Your task to perform on an android device: When is my next appointment? Image 0: 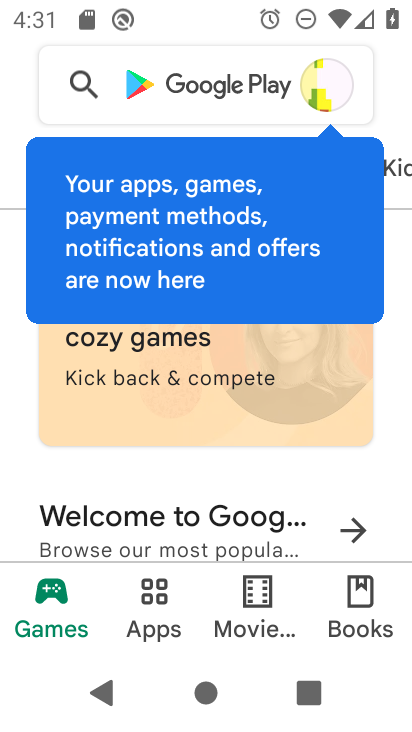
Step 0: press home button
Your task to perform on an android device: When is my next appointment? Image 1: 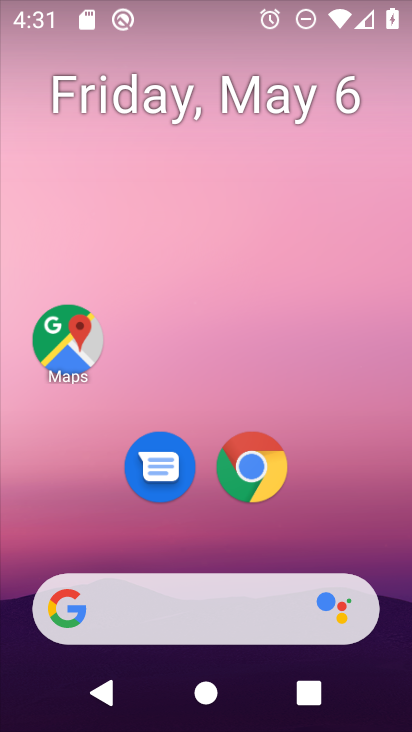
Step 1: drag from (272, 500) to (276, 97)
Your task to perform on an android device: When is my next appointment? Image 2: 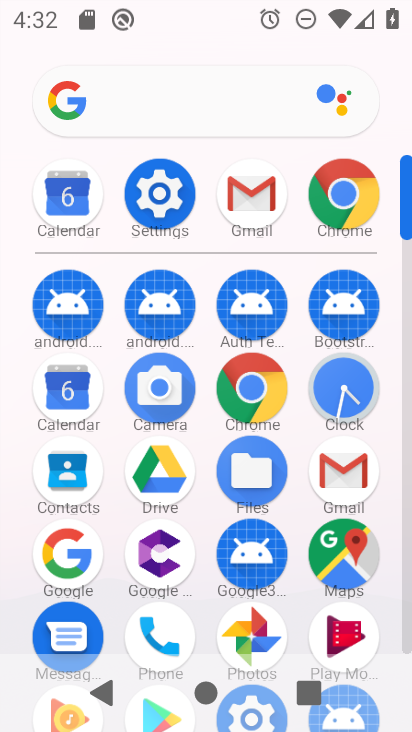
Step 2: drag from (275, 628) to (280, 183)
Your task to perform on an android device: When is my next appointment? Image 3: 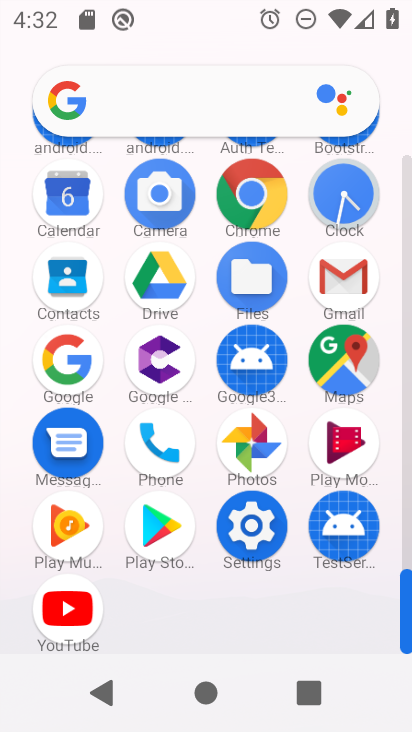
Step 3: click (63, 205)
Your task to perform on an android device: When is my next appointment? Image 4: 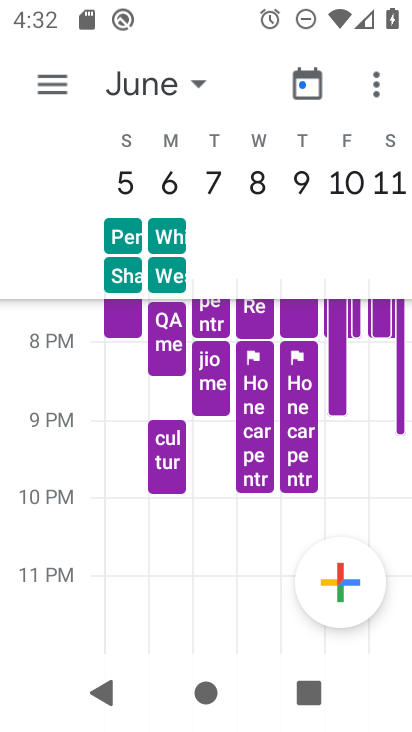
Step 4: click (43, 86)
Your task to perform on an android device: When is my next appointment? Image 5: 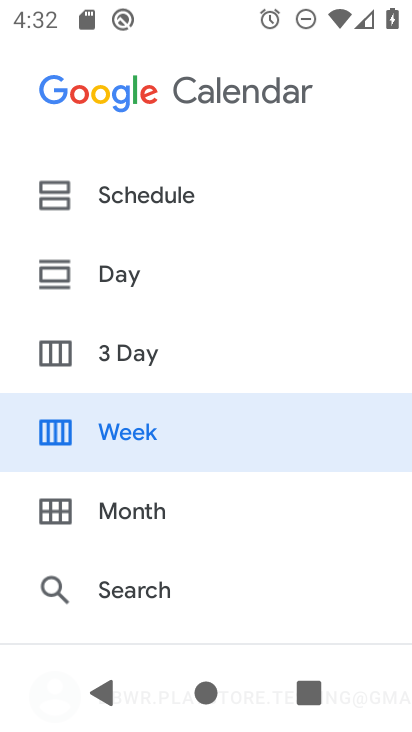
Step 5: click (111, 281)
Your task to perform on an android device: When is my next appointment? Image 6: 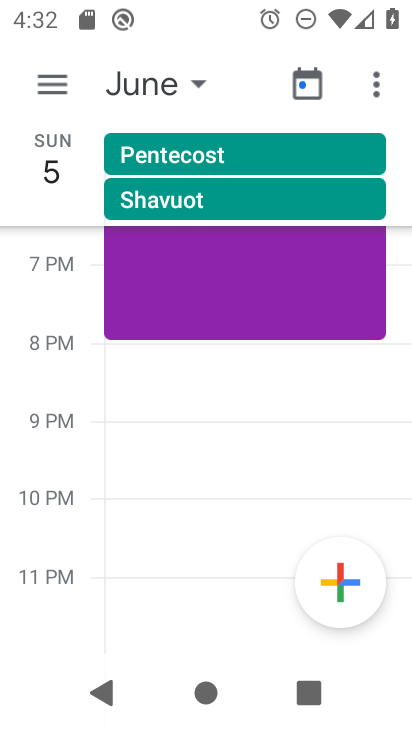
Step 6: click (139, 96)
Your task to perform on an android device: When is my next appointment? Image 7: 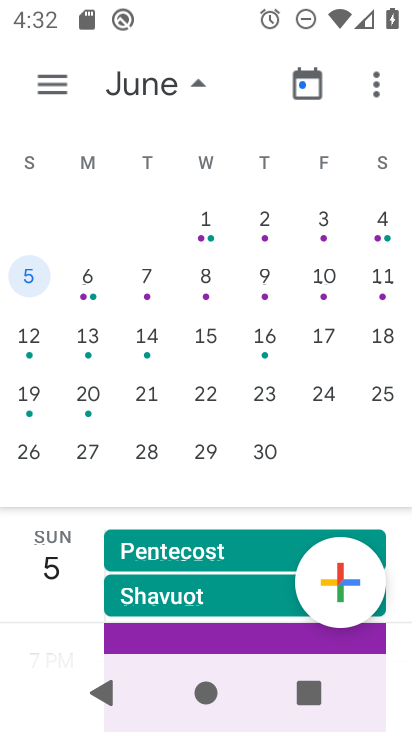
Step 7: drag from (103, 303) to (395, 339)
Your task to perform on an android device: When is my next appointment? Image 8: 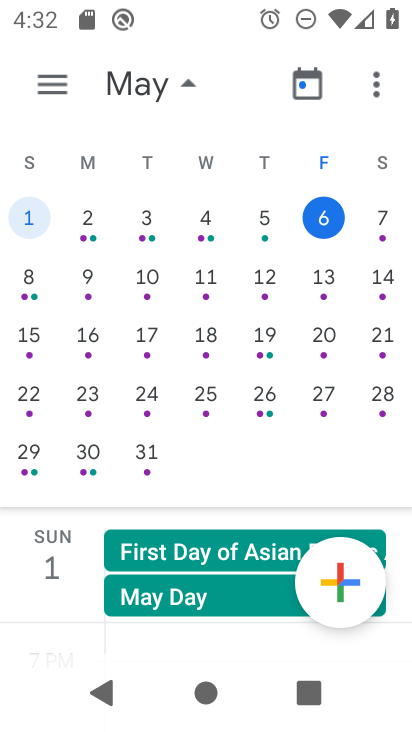
Step 8: click (320, 224)
Your task to perform on an android device: When is my next appointment? Image 9: 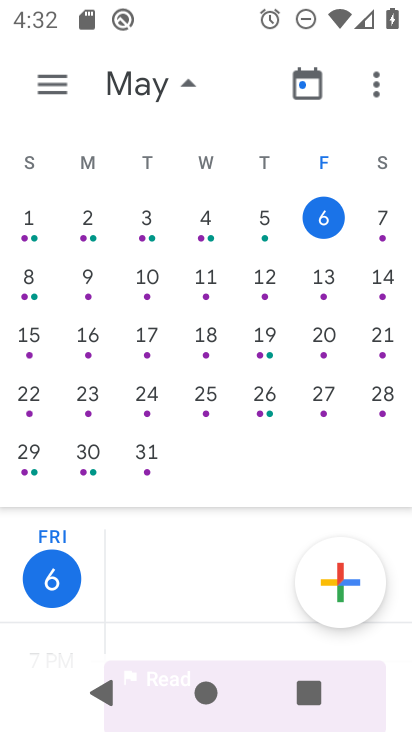
Step 9: drag from (166, 571) to (185, 191)
Your task to perform on an android device: When is my next appointment? Image 10: 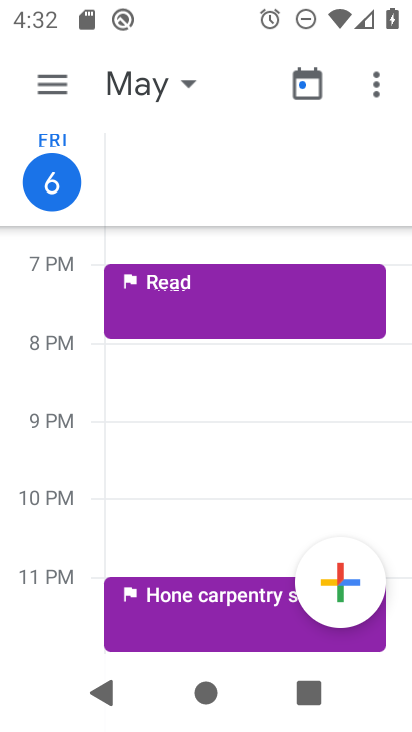
Step 10: drag from (165, 490) to (199, 160)
Your task to perform on an android device: When is my next appointment? Image 11: 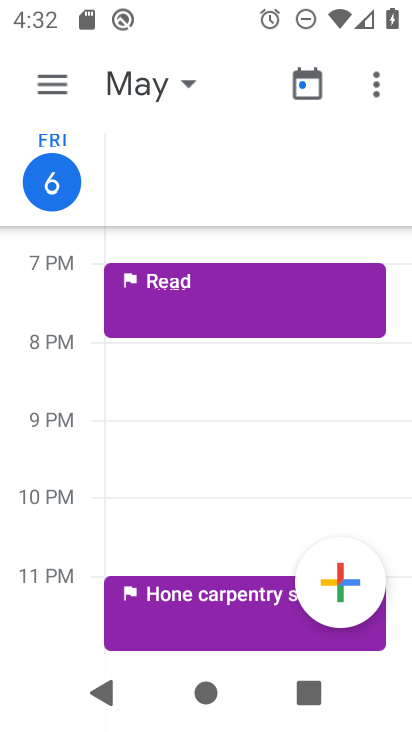
Step 11: drag from (201, 527) to (257, 264)
Your task to perform on an android device: When is my next appointment? Image 12: 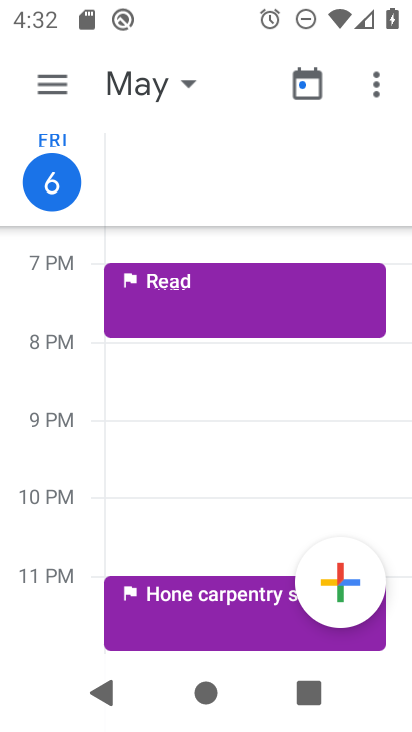
Step 12: drag from (240, 587) to (229, 269)
Your task to perform on an android device: When is my next appointment? Image 13: 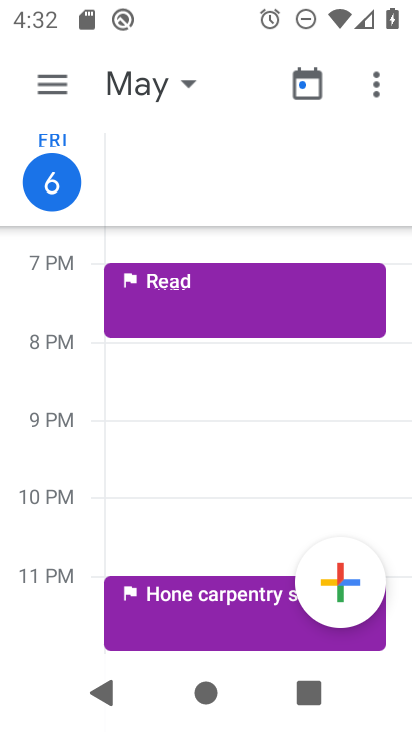
Step 13: drag from (212, 543) to (200, 198)
Your task to perform on an android device: When is my next appointment? Image 14: 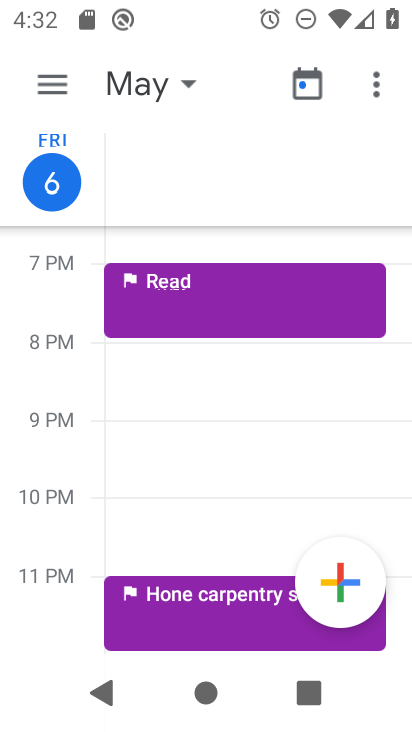
Step 14: drag from (213, 624) to (226, 141)
Your task to perform on an android device: When is my next appointment? Image 15: 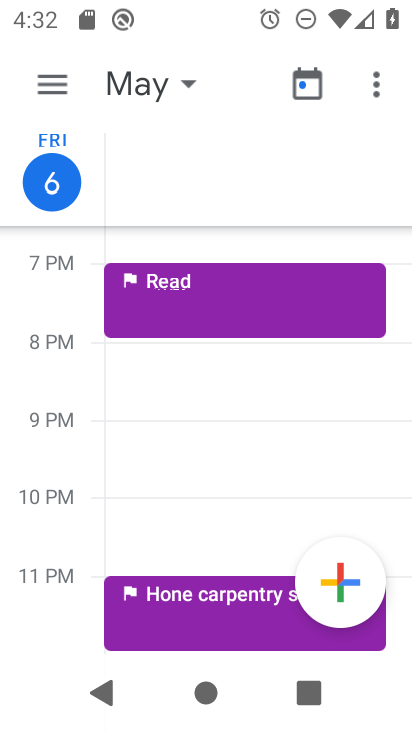
Step 15: drag from (211, 495) to (207, 147)
Your task to perform on an android device: When is my next appointment? Image 16: 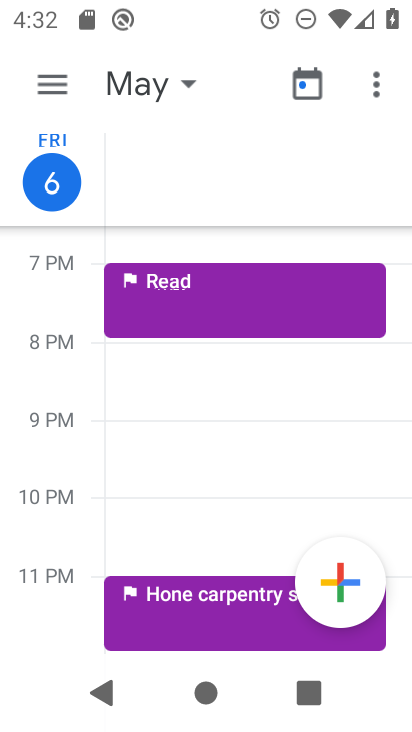
Step 16: drag from (228, 542) to (225, 167)
Your task to perform on an android device: When is my next appointment? Image 17: 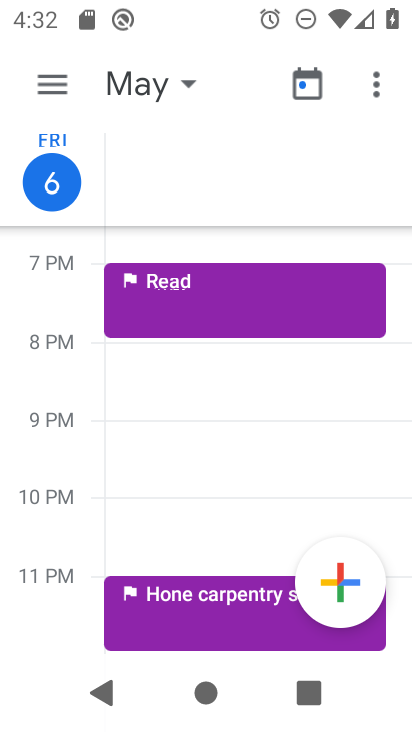
Step 17: drag from (226, 437) to (230, 643)
Your task to perform on an android device: When is my next appointment? Image 18: 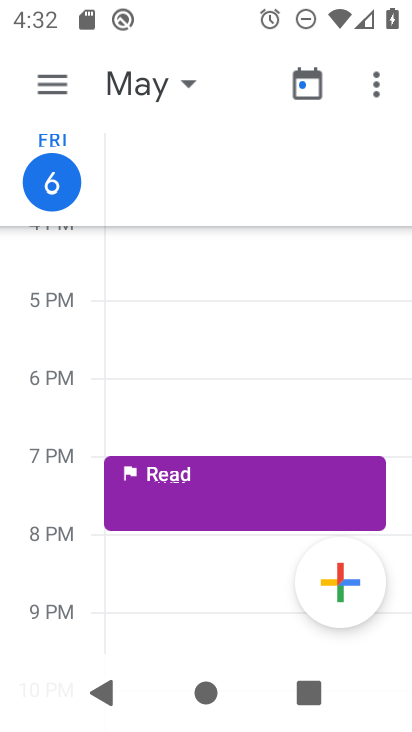
Step 18: drag from (218, 619) to (228, 88)
Your task to perform on an android device: When is my next appointment? Image 19: 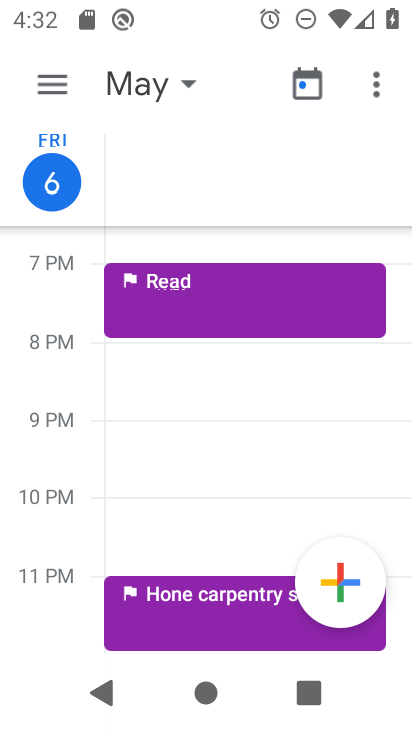
Step 19: drag from (202, 514) to (223, 26)
Your task to perform on an android device: When is my next appointment? Image 20: 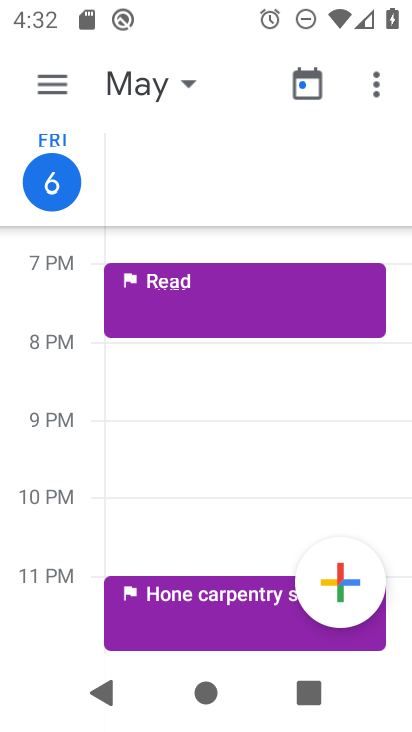
Step 20: click (52, 96)
Your task to perform on an android device: When is my next appointment? Image 21: 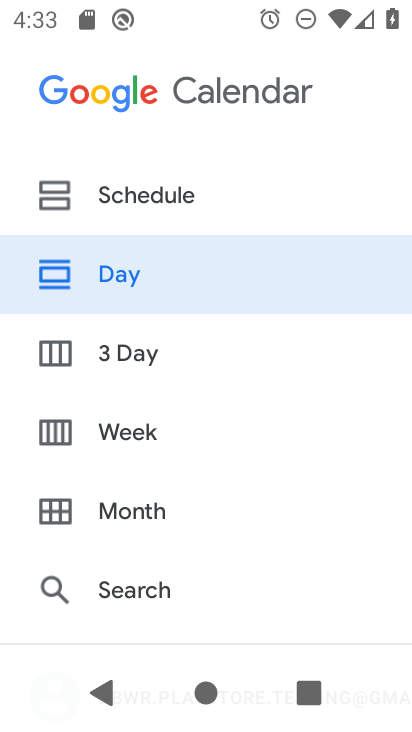
Step 21: click (126, 295)
Your task to perform on an android device: When is my next appointment? Image 22: 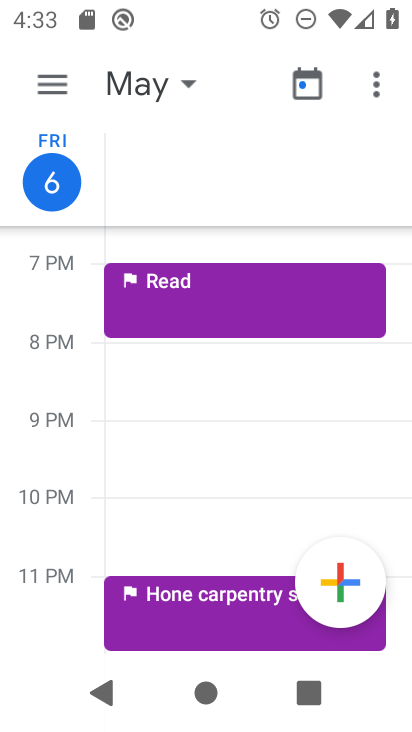
Step 22: task complete